Your task to perform on an android device: open sync settings in chrome Image 0: 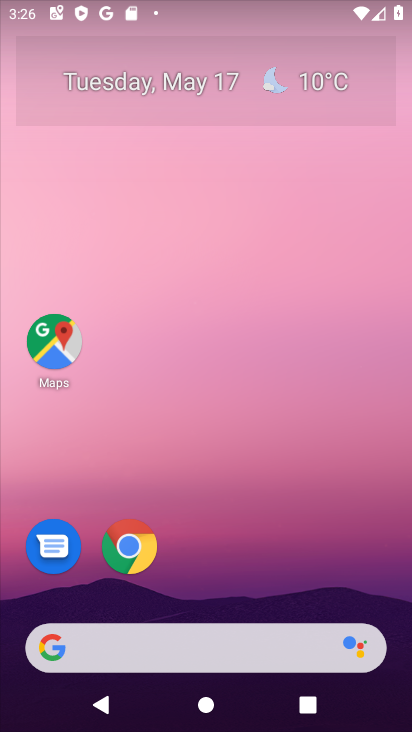
Step 0: click (150, 538)
Your task to perform on an android device: open sync settings in chrome Image 1: 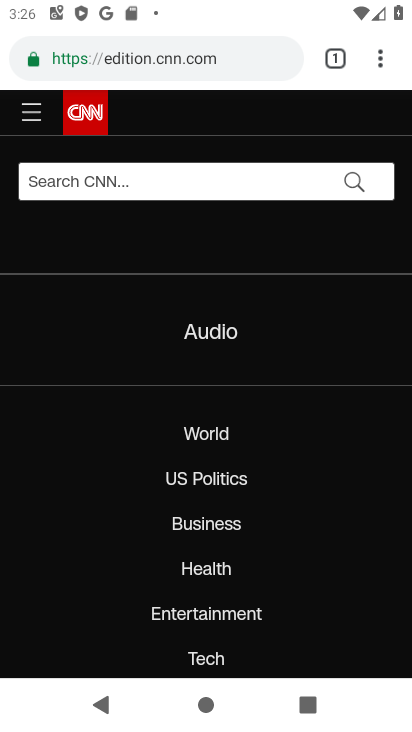
Step 1: click (371, 52)
Your task to perform on an android device: open sync settings in chrome Image 2: 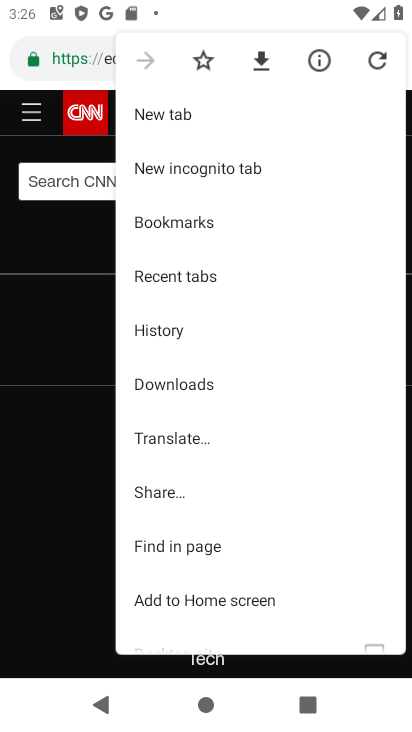
Step 2: drag from (165, 577) to (202, 292)
Your task to perform on an android device: open sync settings in chrome Image 3: 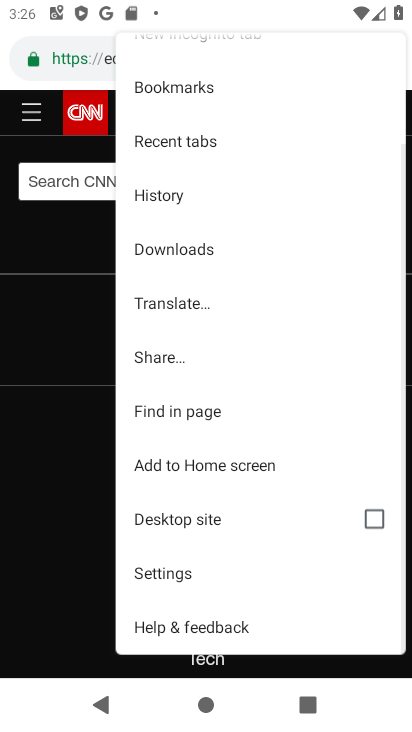
Step 3: click (174, 572)
Your task to perform on an android device: open sync settings in chrome Image 4: 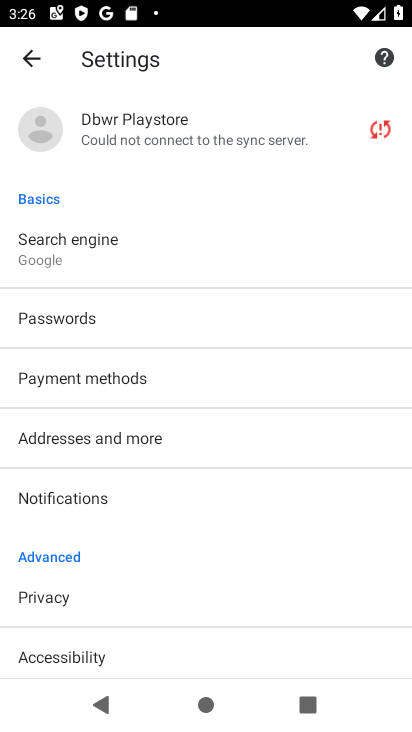
Step 4: click (118, 145)
Your task to perform on an android device: open sync settings in chrome Image 5: 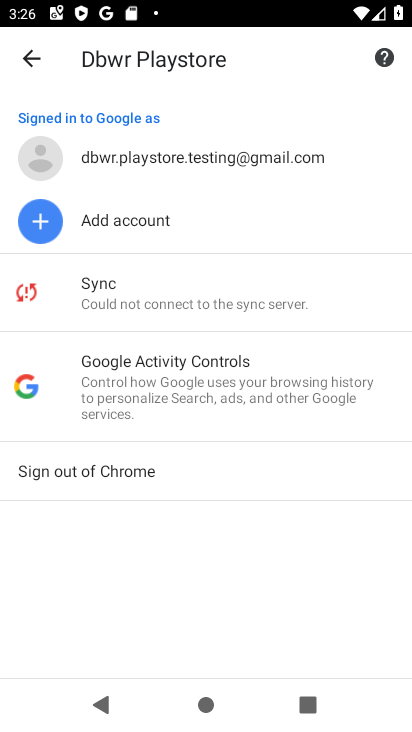
Step 5: click (147, 297)
Your task to perform on an android device: open sync settings in chrome Image 6: 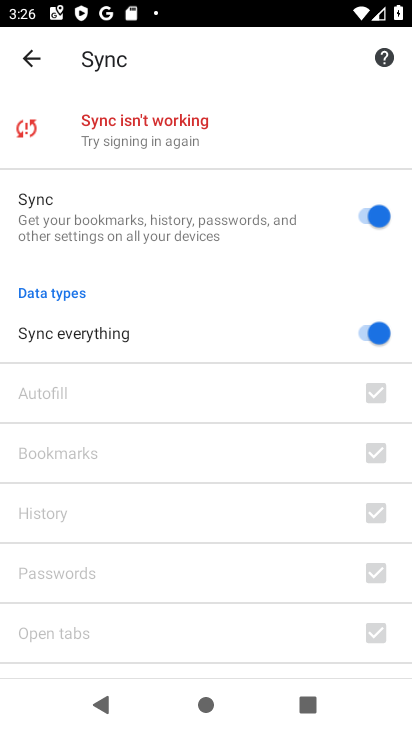
Step 6: task complete